Your task to perform on an android device: find which apps use the phone's location Image 0: 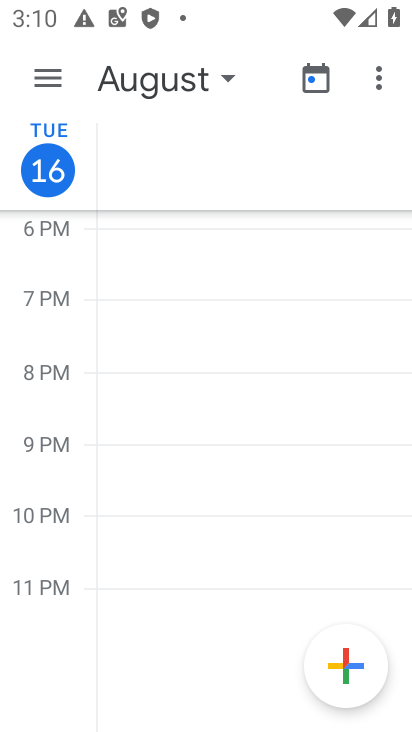
Step 0: press home button
Your task to perform on an android device: find which apps use the phone's location Image 1: 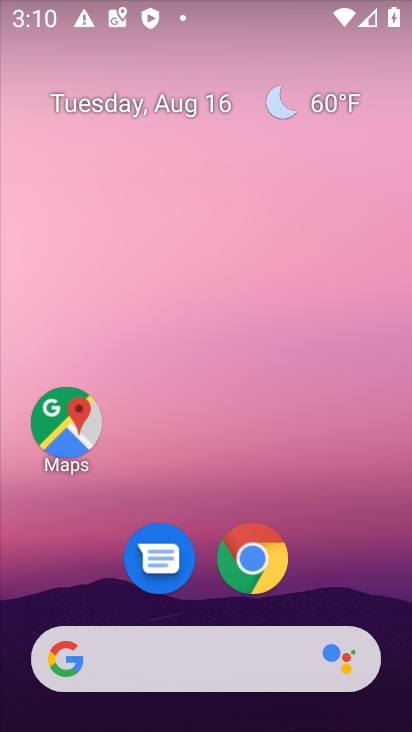
Step 1: drag from (389, 627) to (358, 131)
Your task to perform on an android device: find which apps use the phone's location Image 2: 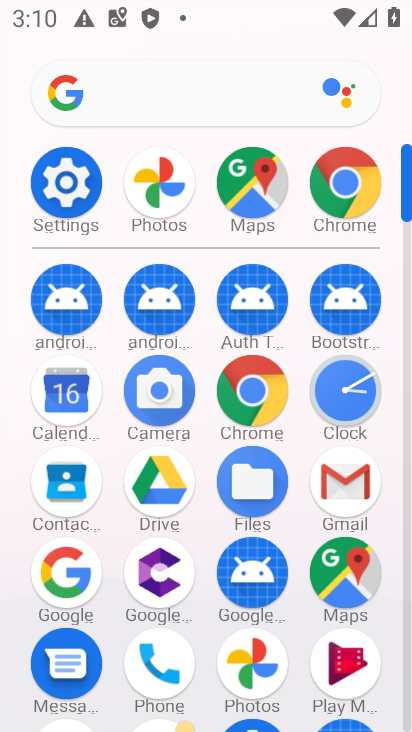
Step 2: click (406, 661)
Your task to perform on an android device: find which apps use the phone's location Image 3: 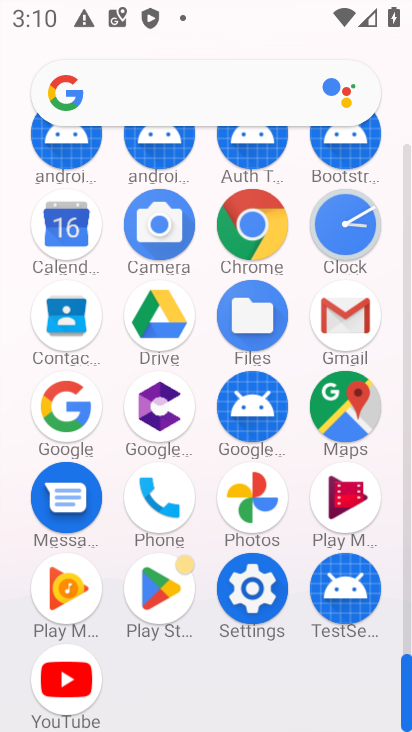
Step 3: click (250, 585)
Your task to perform on an android device: find which apps use the phone's location Image 4: 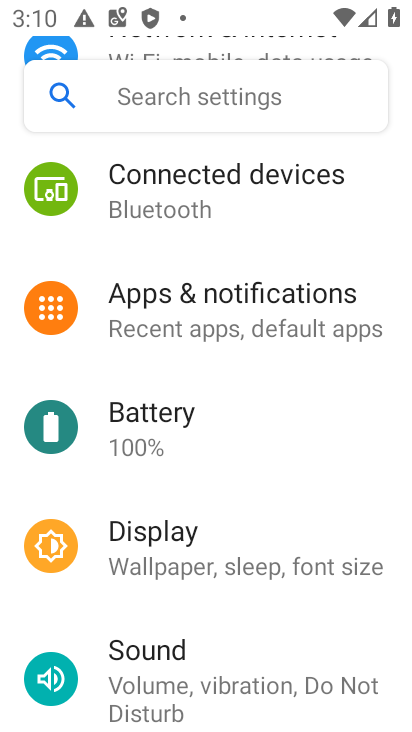
Step 4: drag from (335, 656) to (320, 297)
Your task to perform on an android device: find which apps use the phone's location Image 5: 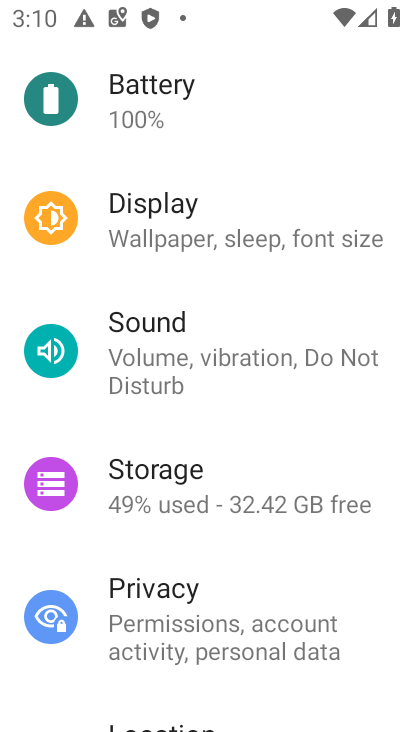
Step 5: drag from (305, 572) to (264, 203)
Your task to perform on an android device: find which apps use the phone's location Image 6: 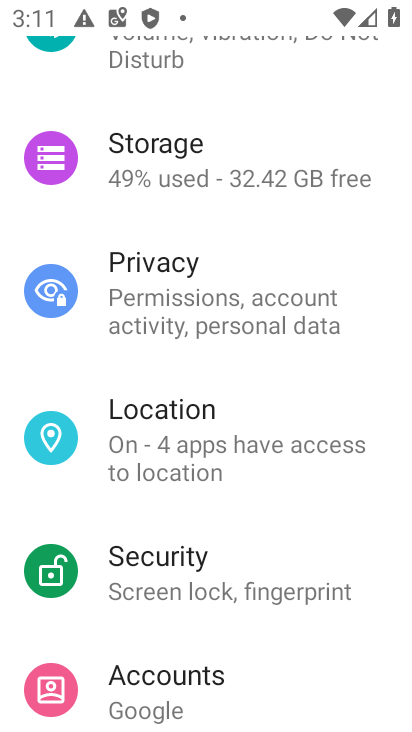
Step 6: click (180, 451)
Your task to perform on an android device: find which apps use the phone's location Image 7: 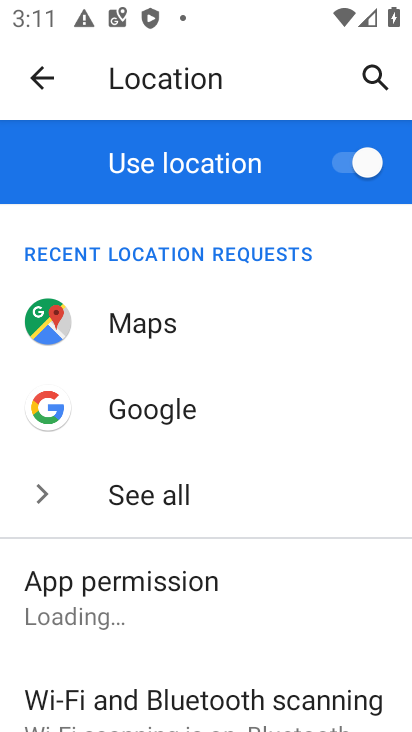
Step 7: drag from (271, 595) to (235, 247)
Your task to perform on an android device: find which apps use the phone's location Image 8: 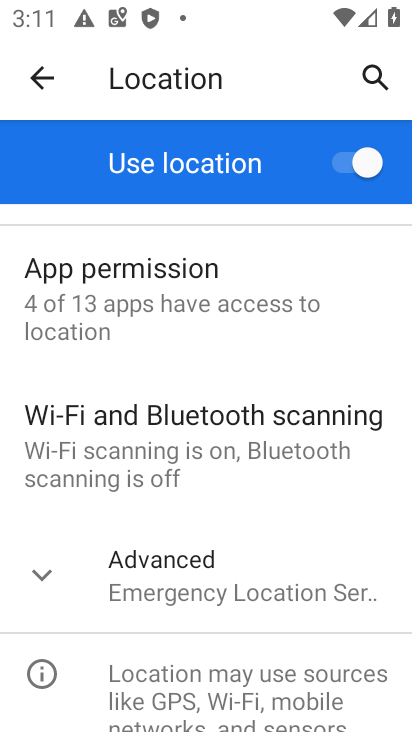
Step 8: click (94, 297)
Your task to perform on an android device: find which apps use the phone's location Image 9: 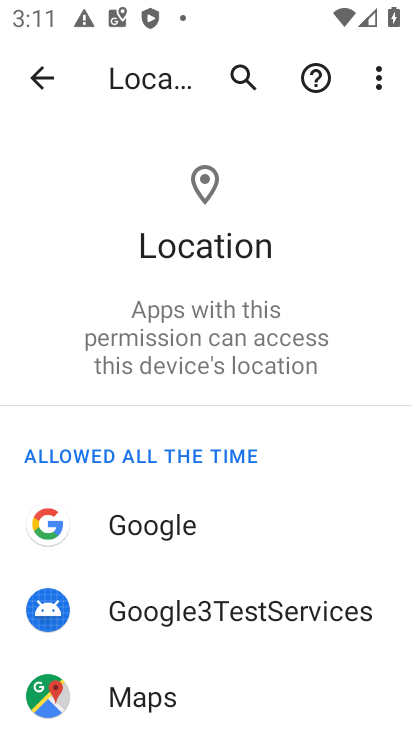
Step 9: task complete